Your task to perform on an android device: open app "Contacts" Image 0: 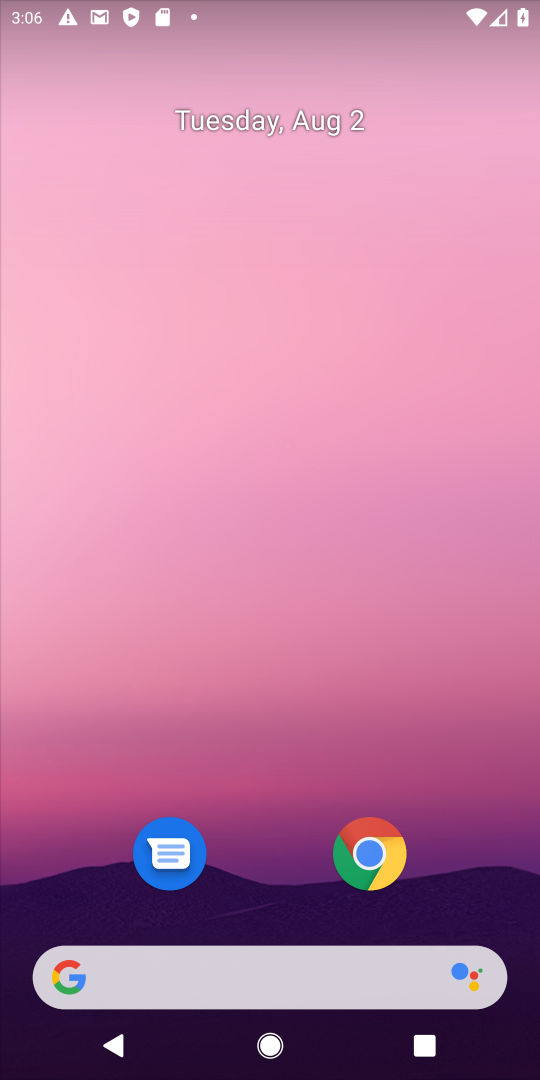
Step 0: drag from (308, 1032) to (304, 714)
Your task to perform on an android device: open app "Contacts" Image 1: 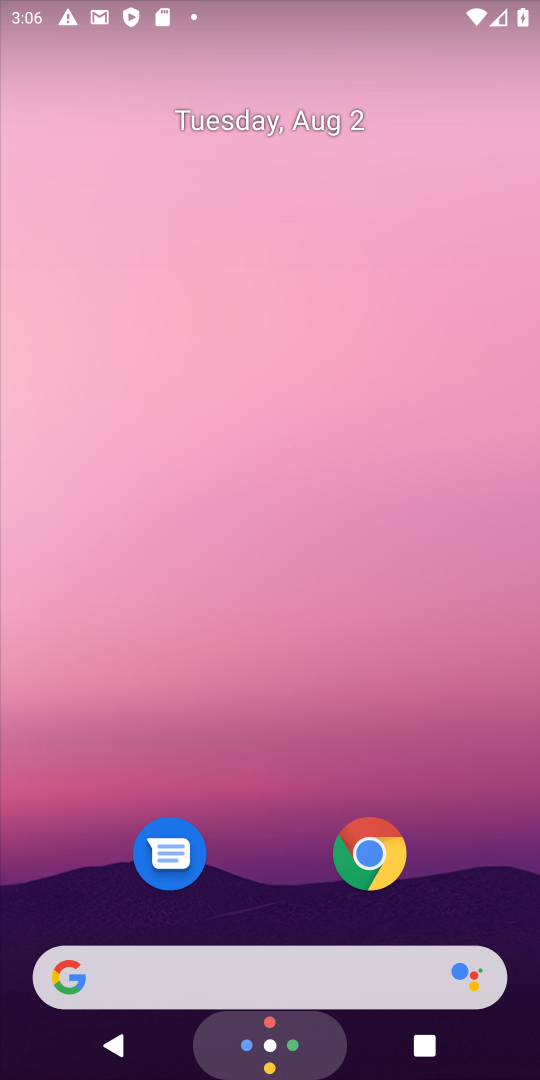
Step 1: click (299, 88)
Your task to perform on an android device: open app "Contacts" Image 2: 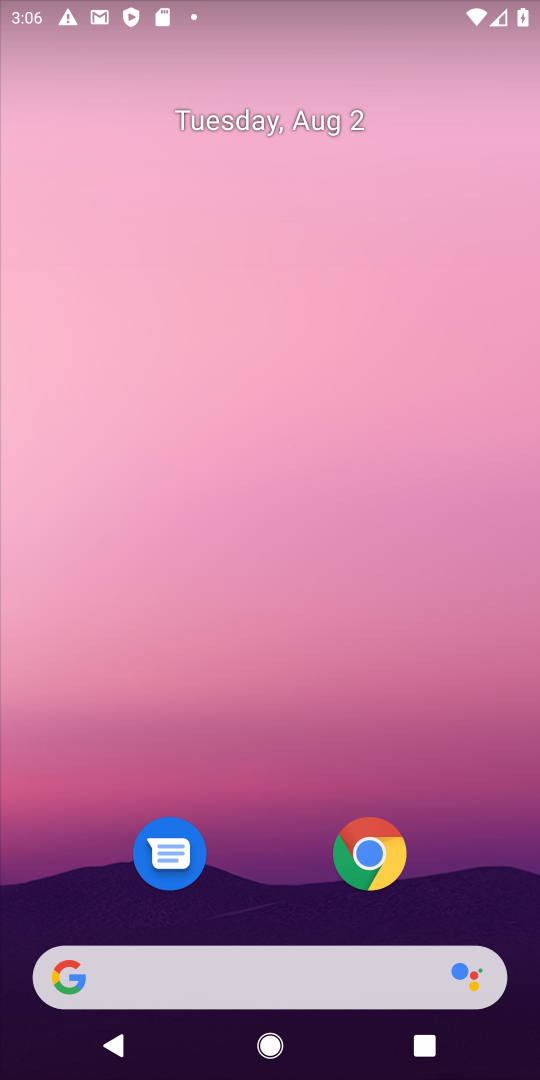
Step 2: drag from (324, 1041) to (302, 141)
Your task to perform on an android device: open app "Contacts" Image 3: 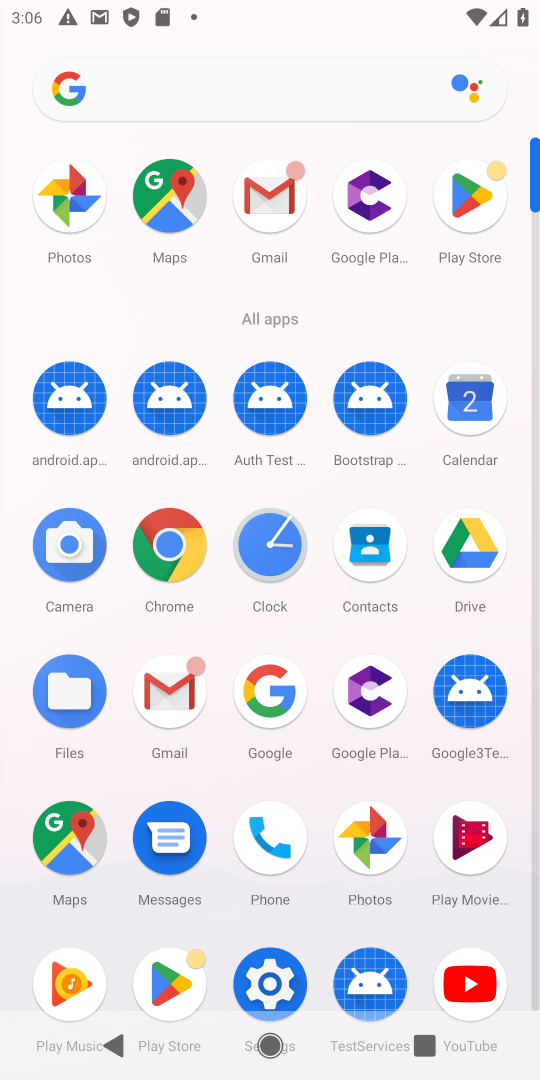
Step 3: click (371, 554)
Your task to perform on an android device: open app "Contacts" Image 4: 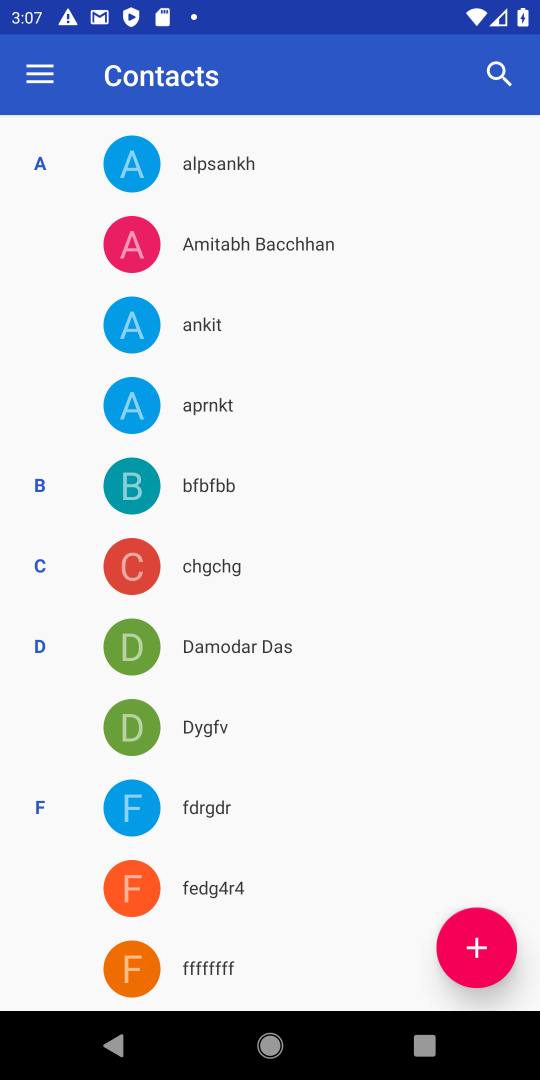
Step 4: task complete